Your task to perform on an android device: Open network settings Image 0: 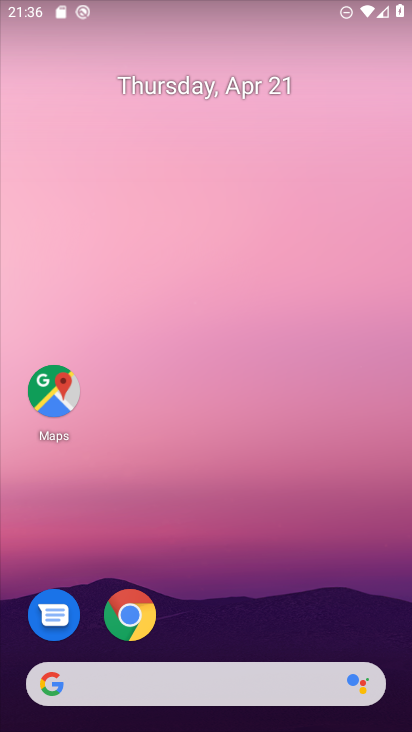
Step 0: drag from (218, 222) to (184, 117)
Your task to perform on an android device: Open network settings Image 1: 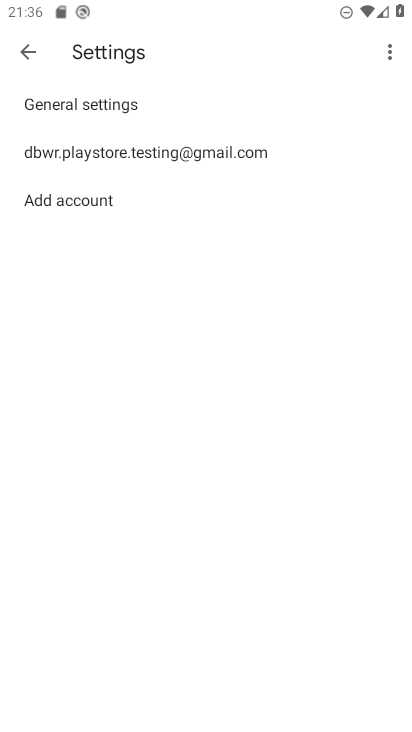
Step 1: press home button
Your task to perform on an android device: Open network settings Image 2: 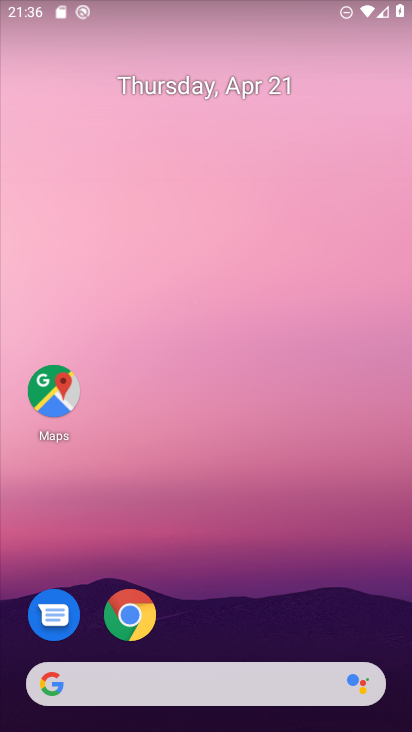
Step 2: drag from (198, 597) to (198, 143)
Your task to perform on an android device: Open network settings Image 3: 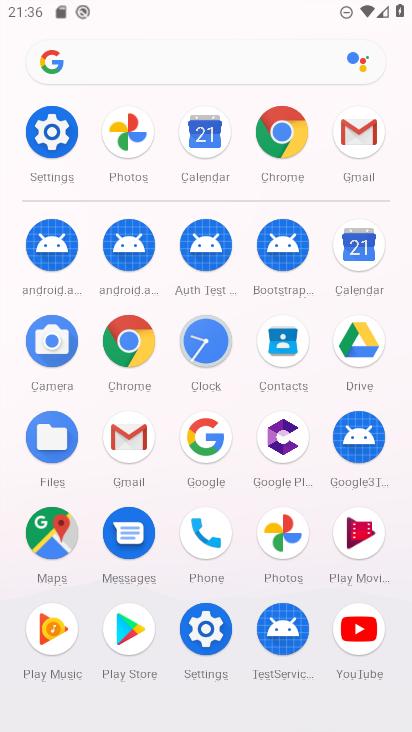
Step 3: click (221, 633)
Your task to perform on an android device: Open network settings Image 4: 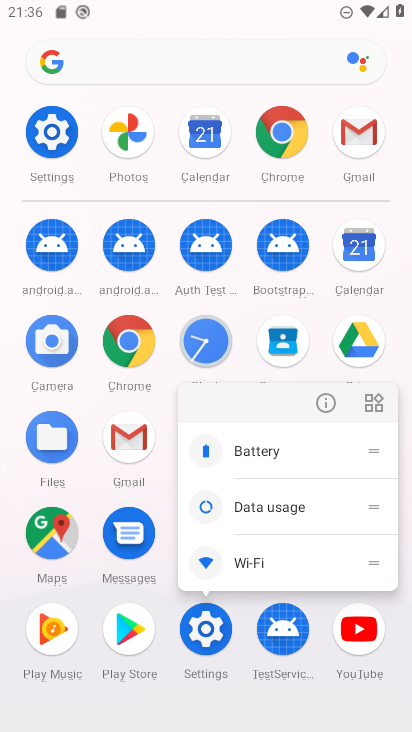
Step 4: click (333, 395)
Your task to perform on an android device: Open network settings Image 5: 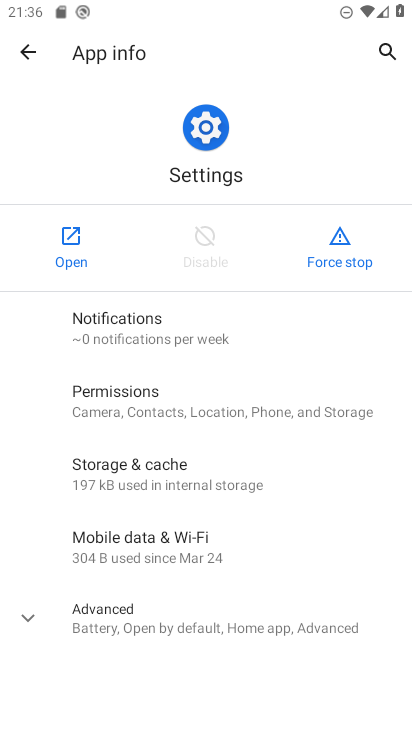
Step 5: click (66, 256)
Your task to perform on an android device: Open network settings Image 6: 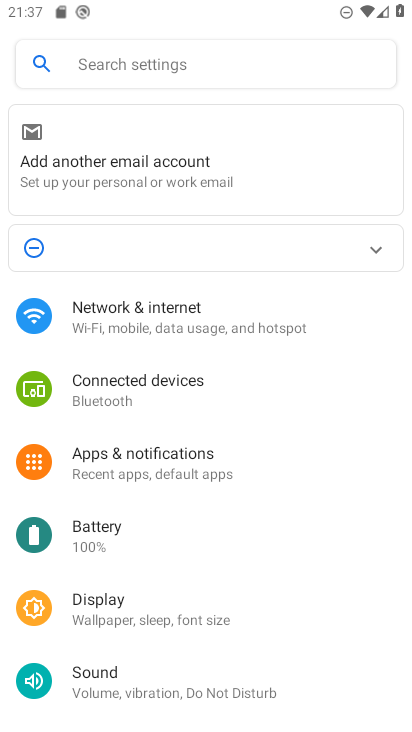
Step 6: click (178, 316)
Your task to perform on an android device: Open network settings Image 7: 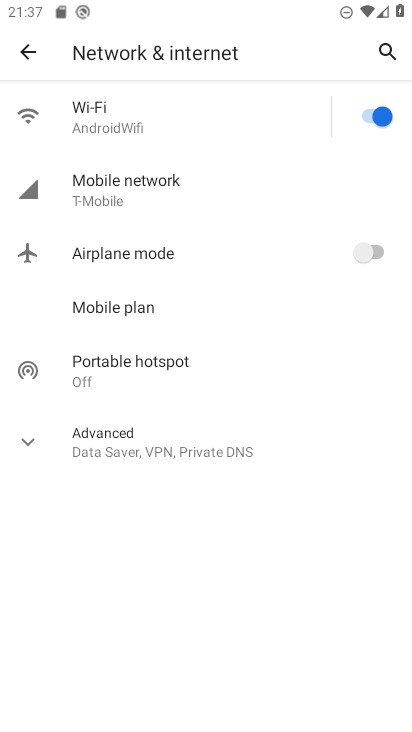
Step 7: task complete